Your task to perform on an android device: manage bookmarks in the chrome app Image 0: 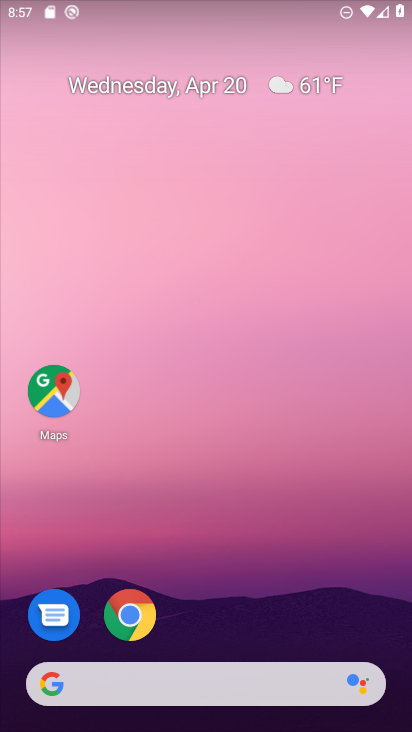
Step 0: drag from (275, 694) to (325, 295)
Your task to perform on an android device: manage bookmarks in the chrome app Image 1: 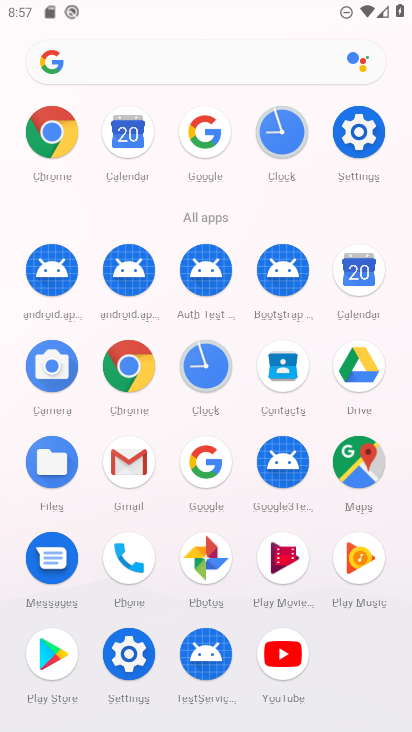
Step 1: click (128, 355)
Your task to perform on an android device: manage bookmarks in the chrome app Image 2: 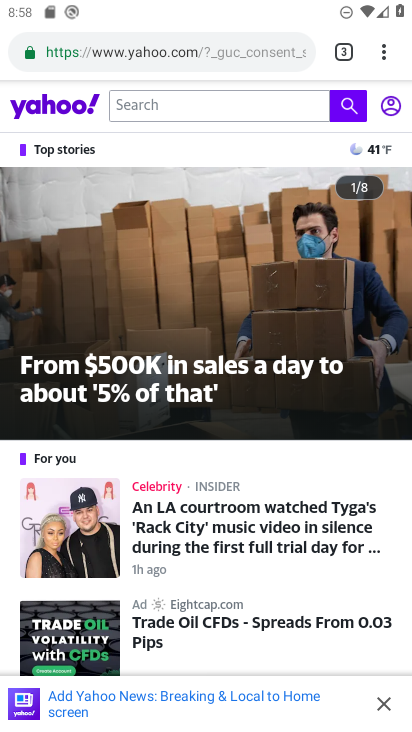
Step 2: click (383, 43)
Your task to perform on an android device: manage bookmarks in the chrome app Image 3: 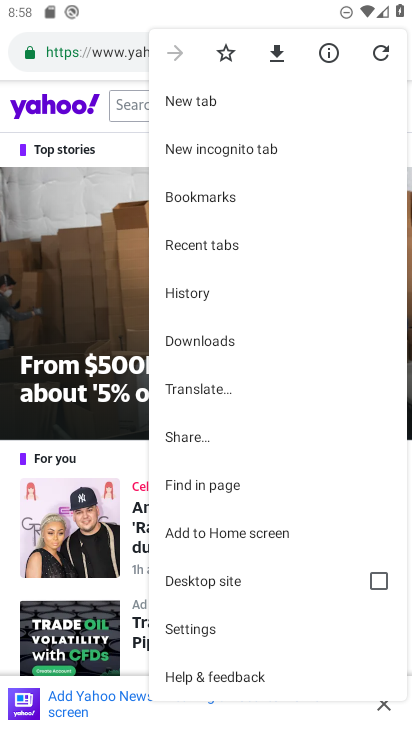
Step 3: click (238, 200)
Your task to perform on an android device: manage bookmarks in the chrome app Image 4: 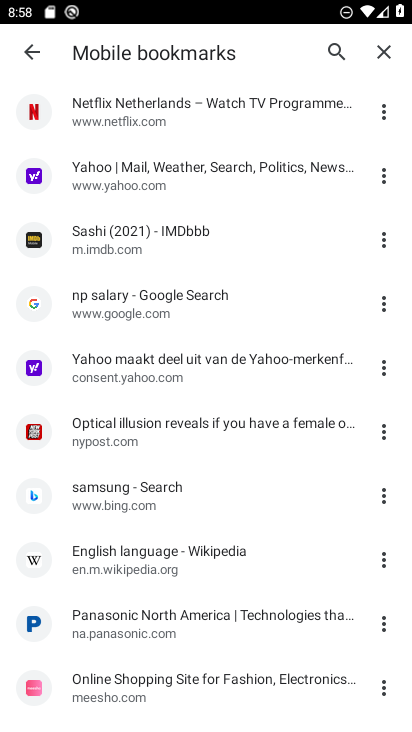
Step 4: click (82, 163)
Your task to perform on an android device: manage bookmarks in the chrome app Image 5: 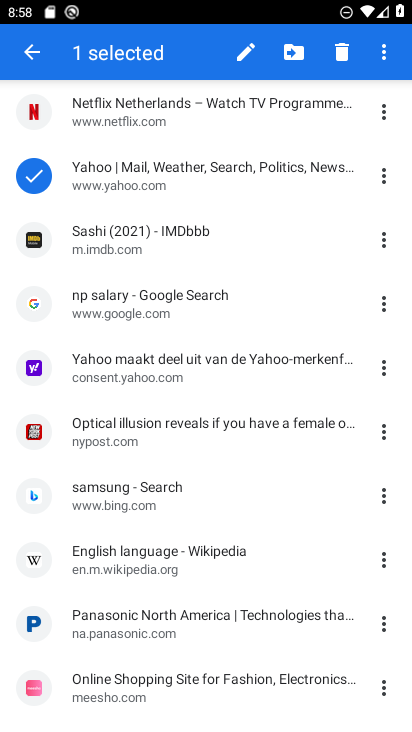
Step 5: click (284, 53)
Your task to perform on an android device: manage bookmarks in the chrome app Image 6: 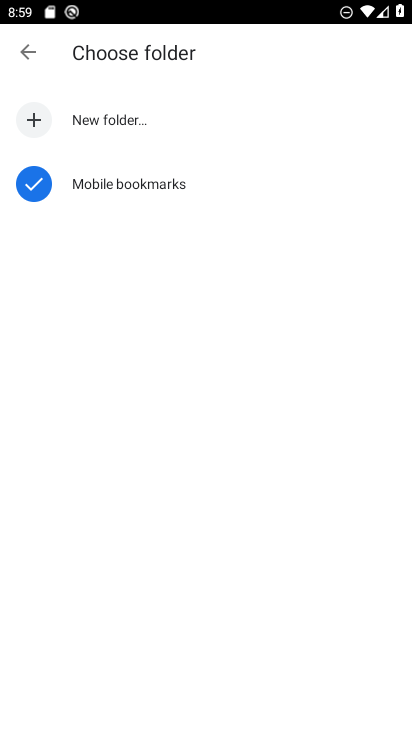
Step 6: click (187, 182)
Your task to perform on an android device: manage bookmarks in the chrome app Image 7: 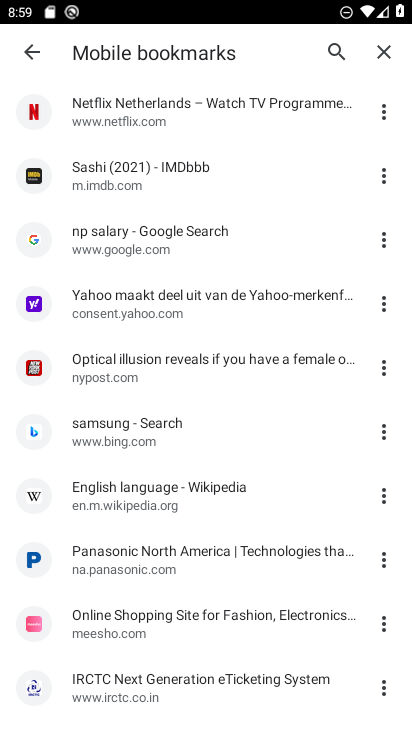
Step 7: task complete